Your task to perform on an android device: install app "LiveIn - Share Your Moment" Image 0: 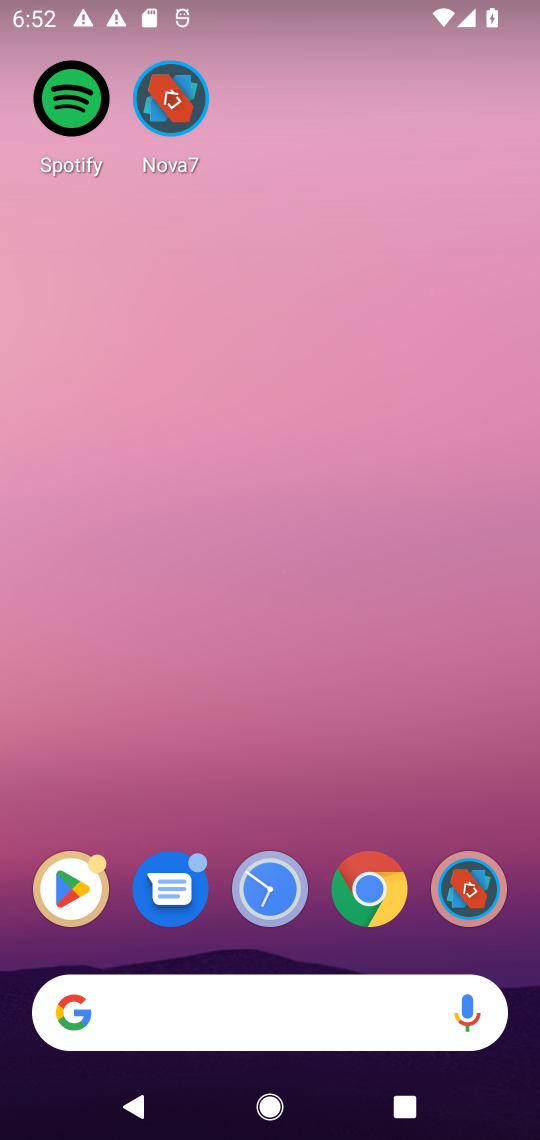
Step 0: drag from (268, 756) to (307, 50)
Your task to perform on an android device: install app "LiveIn - Share Your Moment" Image 1: 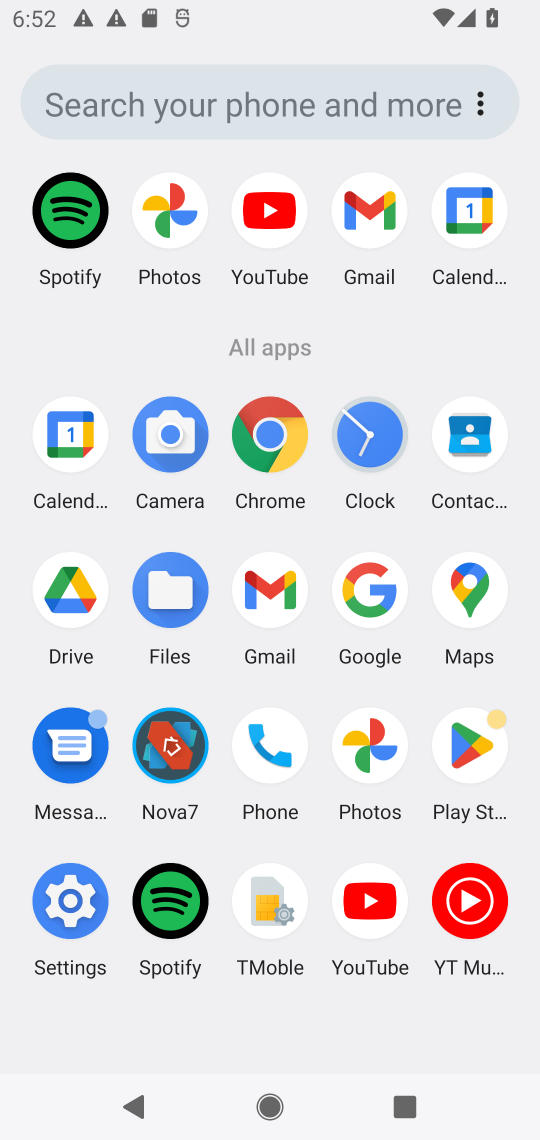
Step 1: drag from (276, 474) to (245, 148)
Your task to perform on an android device: install app "LiveIn - Share Your Moment" Image 2: 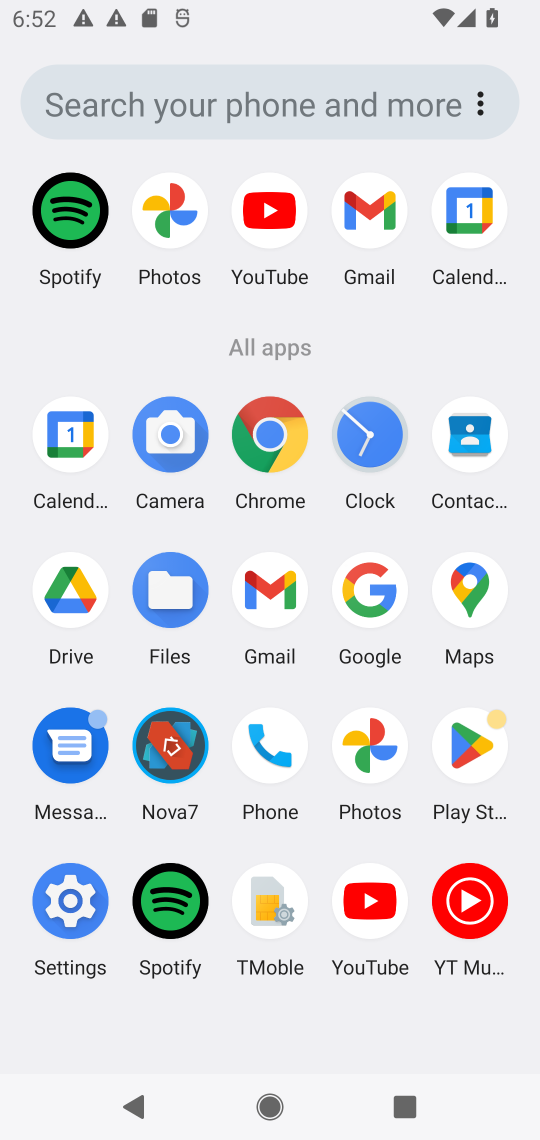
Step 2: drag from (252, 667) to (159, 88)
Your task to perform on an android device: install app "LiveIn - Share Your Moment" Image 3: 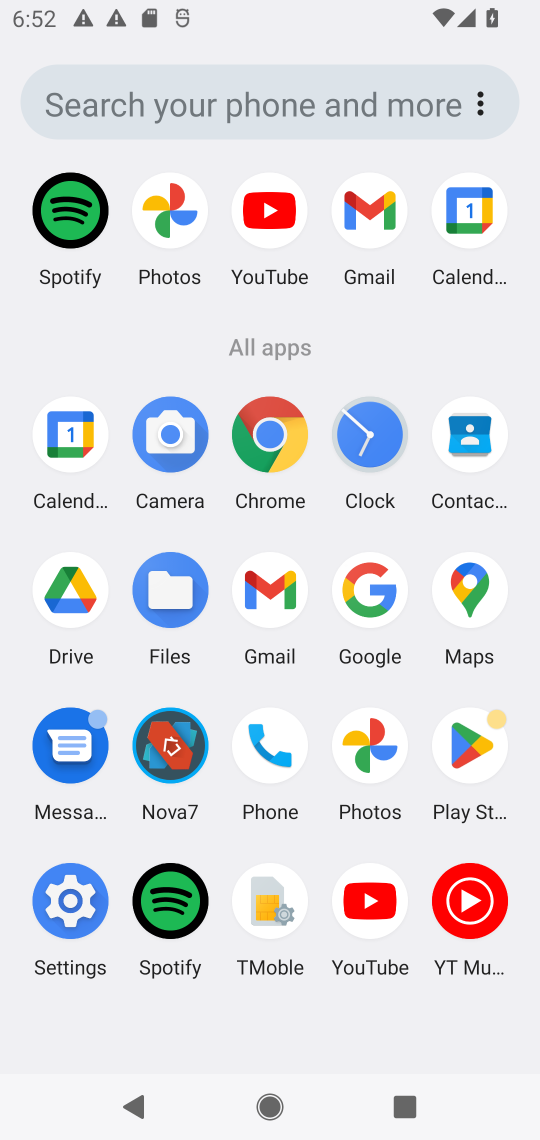
Step 3: drag from (198, 1054) to (182, 326)
Your task to perform on an android device: install app "LiveIn - Share Your Moment" Image 4: 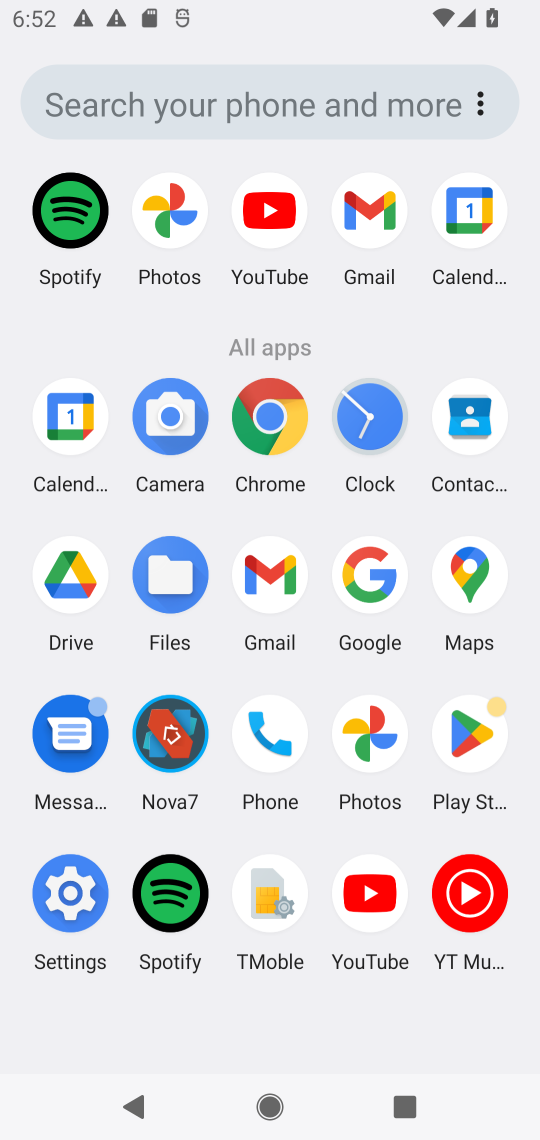
Step 4: drag from (272, 914) to (273, 436)
Your task to perform on an android device: install app "LiveIn - Share Your Moment" Image 5: 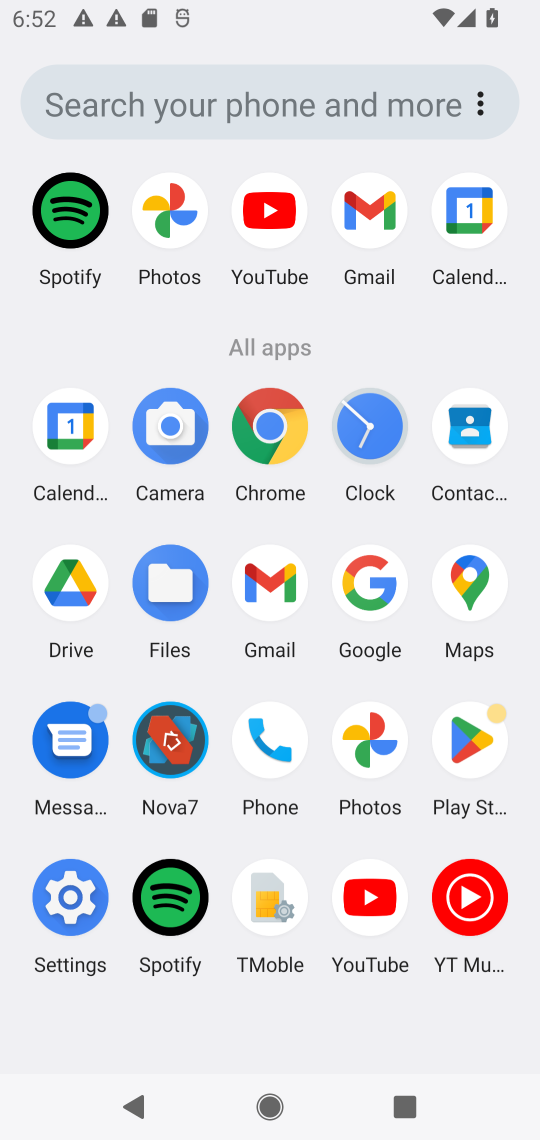
Step 5: drag from (296, 830) to (292, 379)
Your task to perform on an android device: install app "LiveIn - Share Your Moment" Image 6: 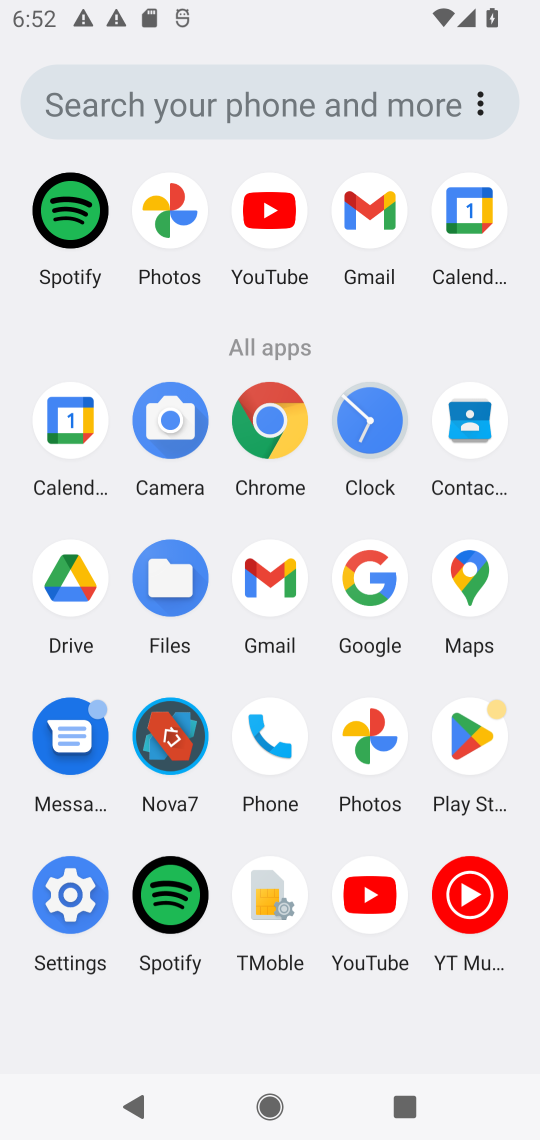
Step 6: drag from (291, 591) to (291, 418)
Your task to perform on an android device: install app "LiveIn - Share Your Moment" Image 7: 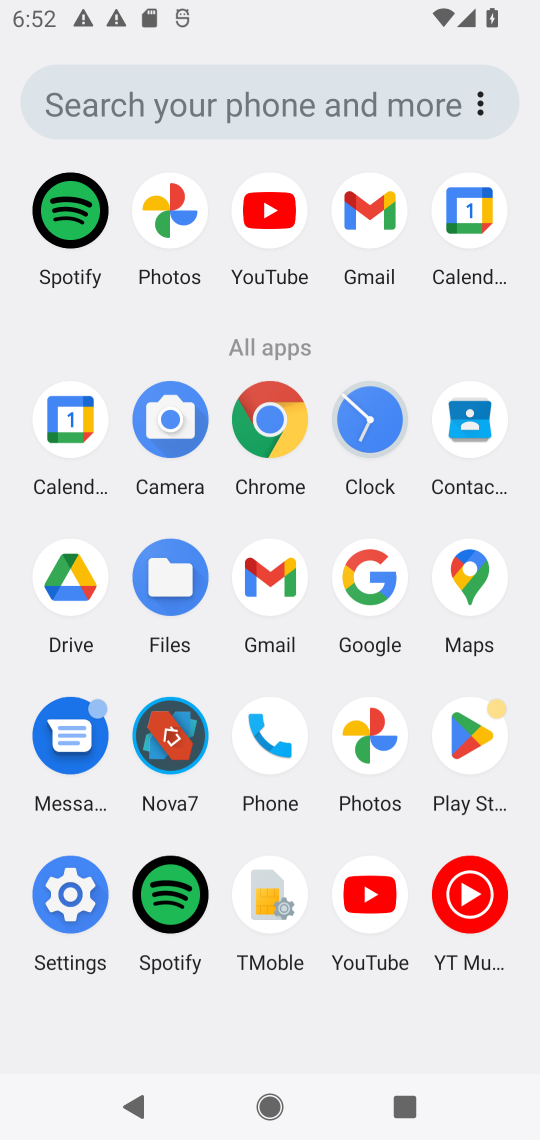
Step 7: drag from (290, 624) to (324, 536)
Your task to perform on an android device: install app "LiveIn - Share Your Moment" Image 8: 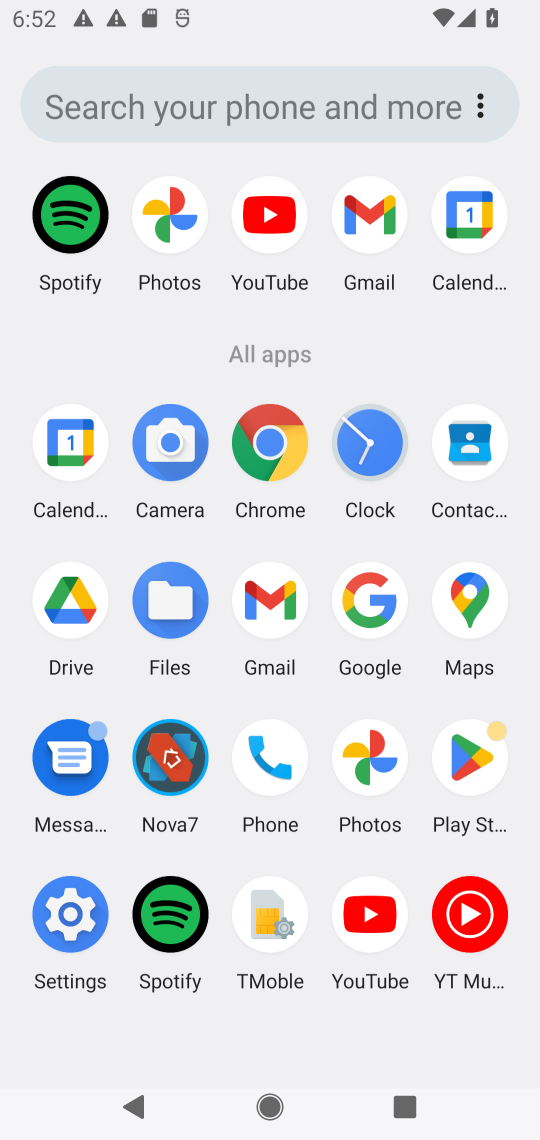
Step 8: drag from (324, 907) to (315, 509)
Your task to perform on an android device: install app "LiveIn - Share Your Moment" Image 9: 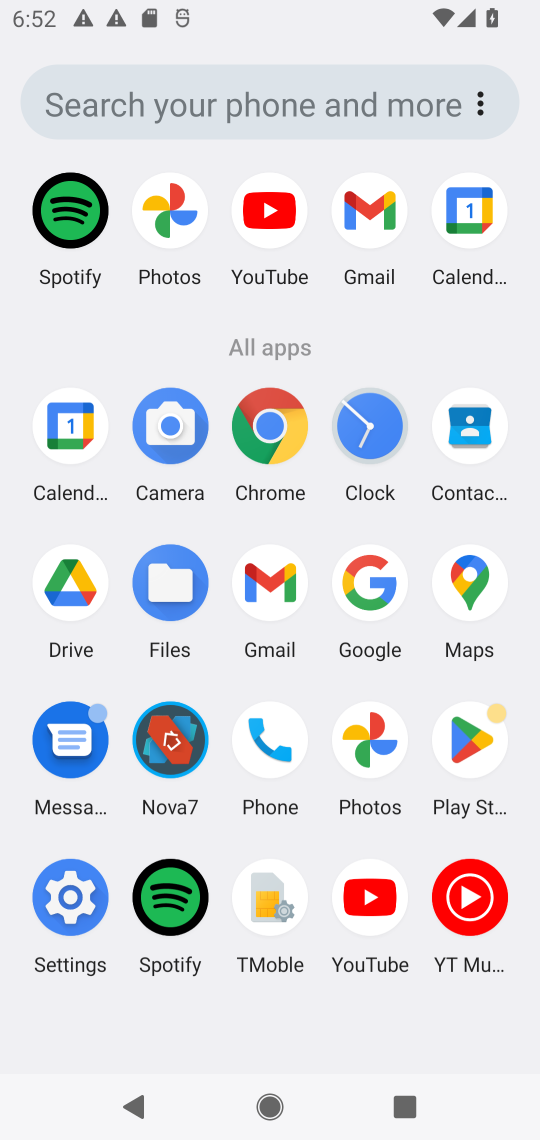
Step 9: click (250, 677)
Your task to perform on an android device: install app "LiveIn - Share Your Moment" Image 10: 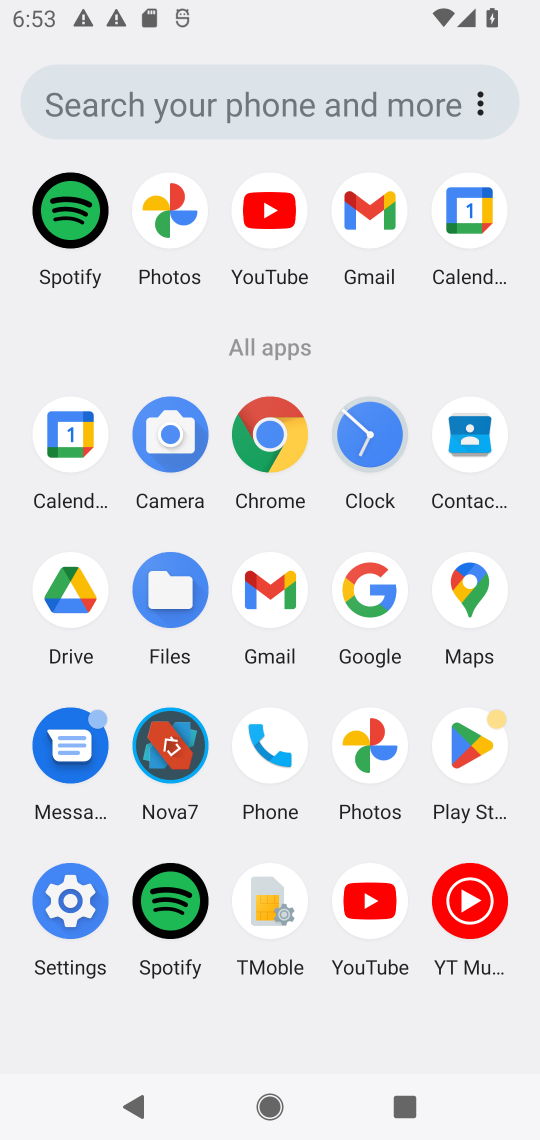
Step 10: click (473, 738)
Your task to perform on an android device: install app "LiveIn - Share Your Moment" Image 11: 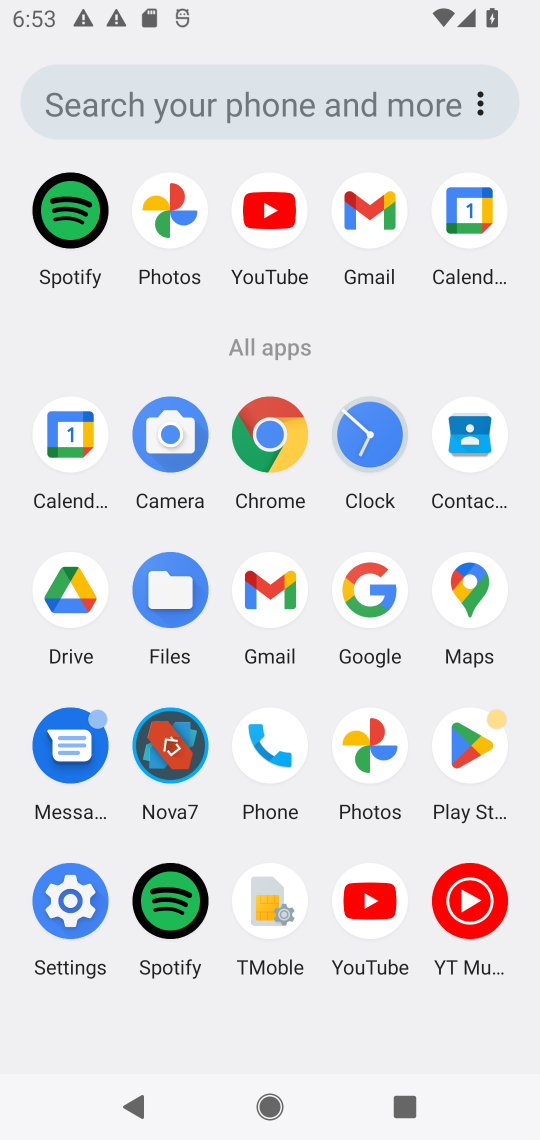
Step 11: click (472, 738)
Your task to perform on an android device: install app "LiveIn - Share Your Moment" Image 12: 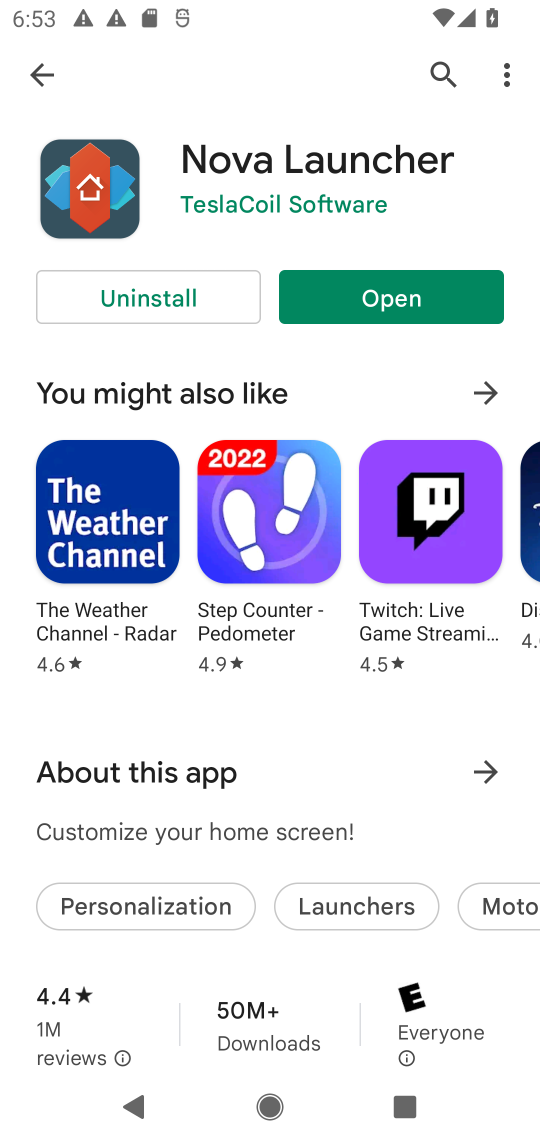
Step 12: click (472, 740)
Your task to perform on an android device: install app "LiveIn - Share Your Moment" Image 13: 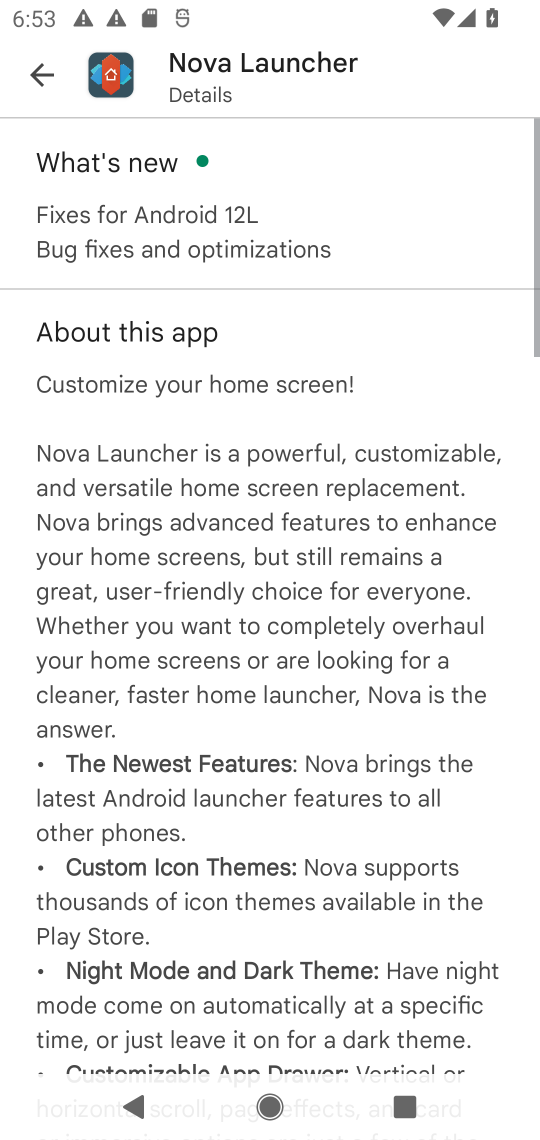
Step 13: click (44, 65)
Your task to perform on an android device: install app "LiveIn - Share Your Moment" Image 14: 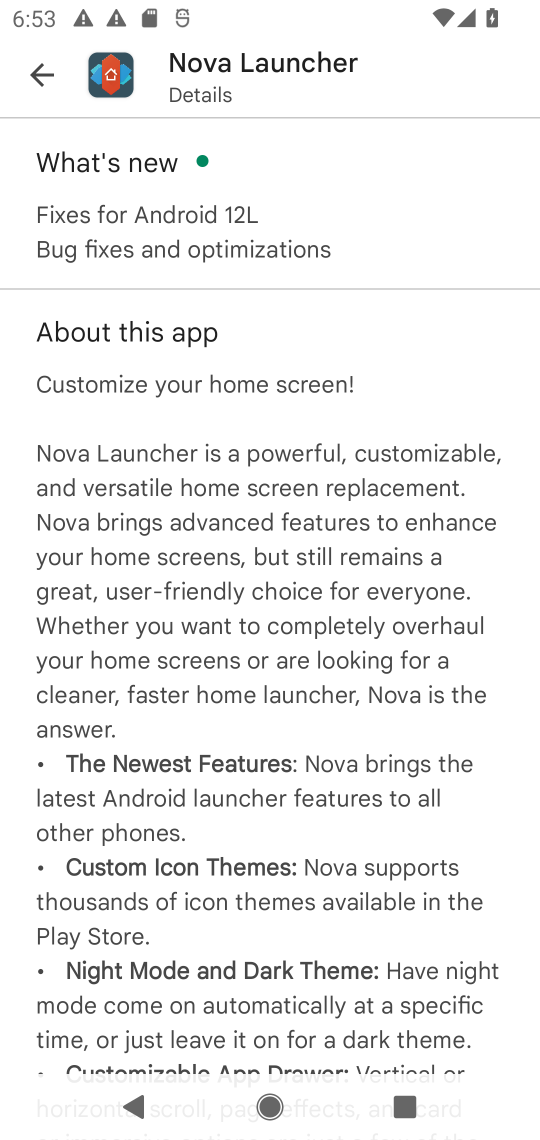
Step 14: click (32, 73)
Your task to perform on an android device: install app "LiveIn - Share Your Moment" Image 15: 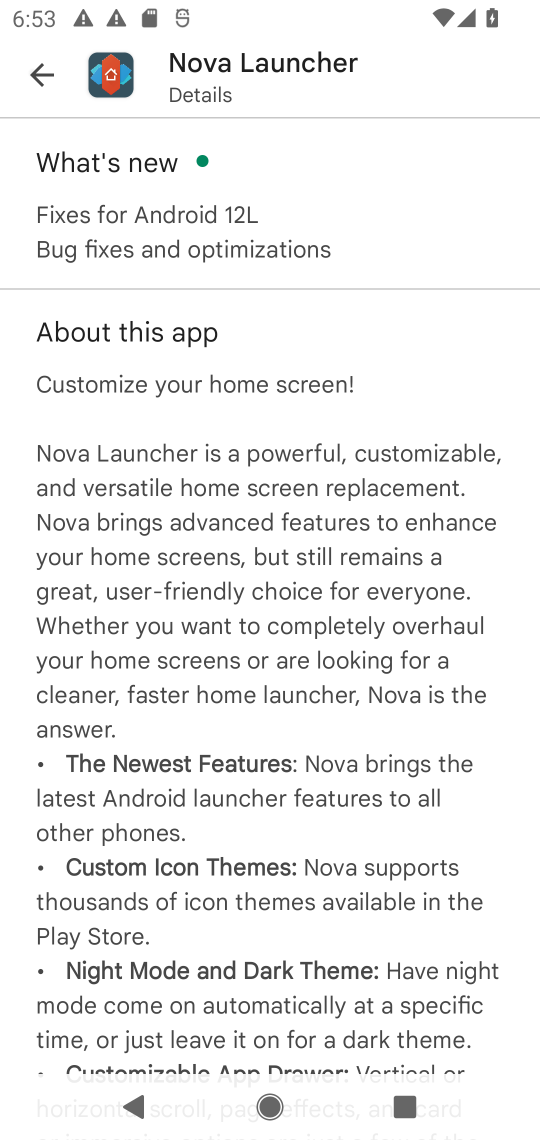
Step 15: click (33, 71)
Your task to perform on an android device: install app "LiveIn - Share Your Moment" Image 16: 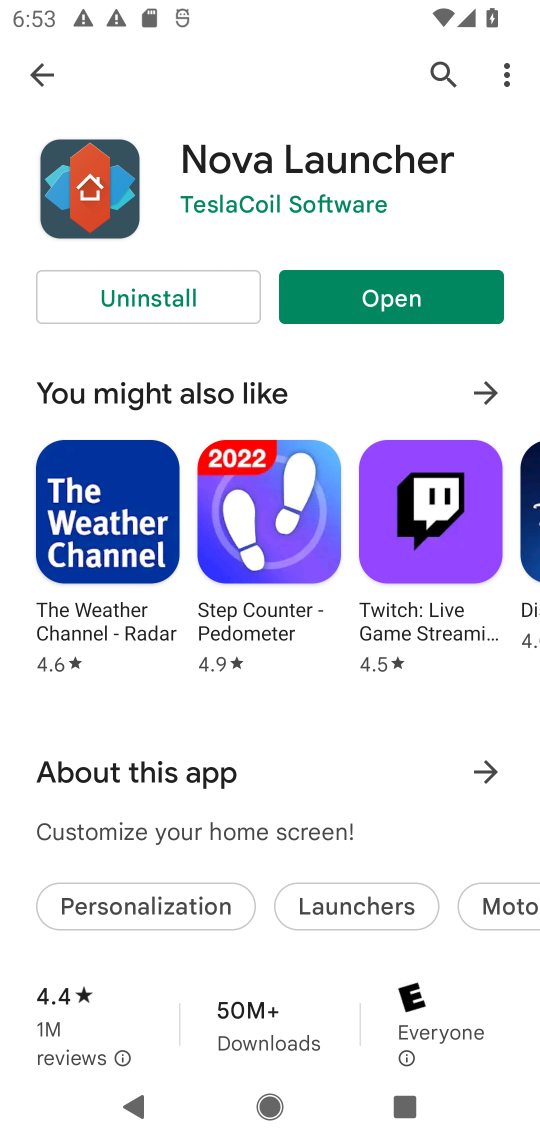
Step 16: click (38, 71)
Your task to perform on an android device: install app "LiveIn - Share Your Moment" Image 17: 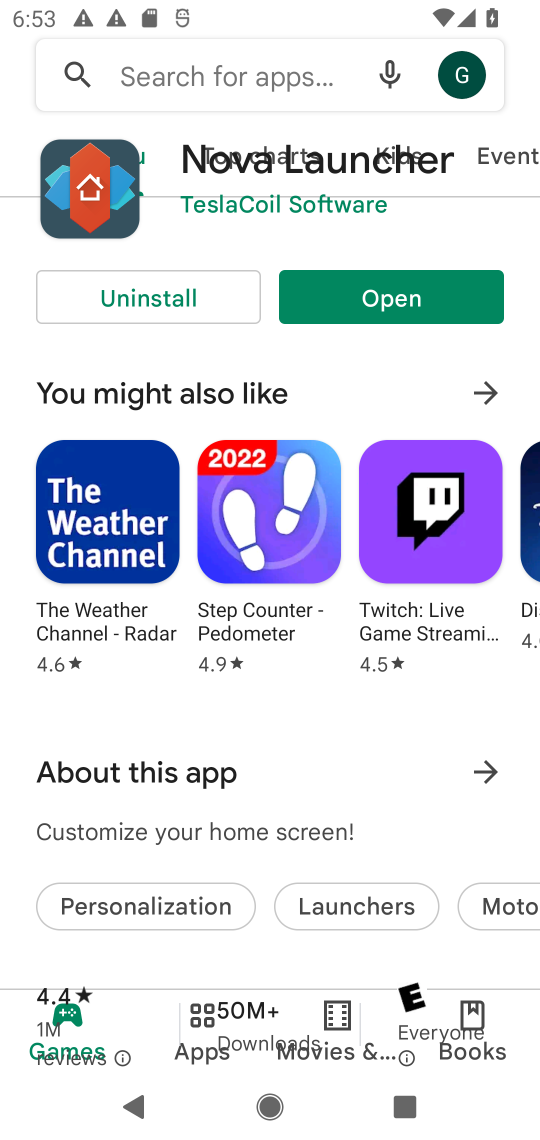
Step 17: click (34, 70)
Your task to perform on an android device: install app "LiveIn - Share Your Moment" Image 18: 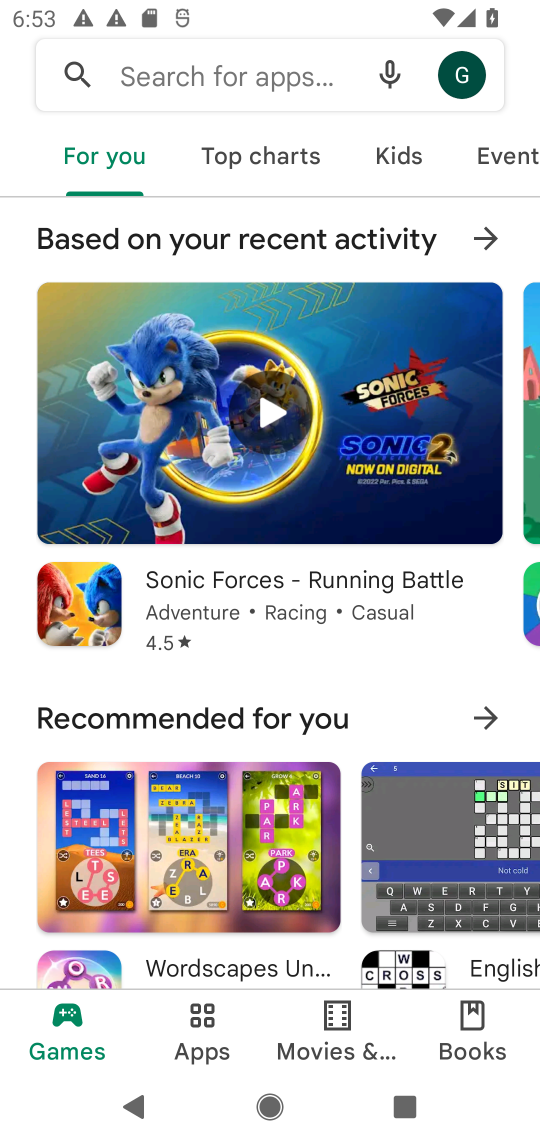
Step 18: click (169, 58)
Your task to perform on an android device: install app "LiveIn - Share Your Moment" Image 19: 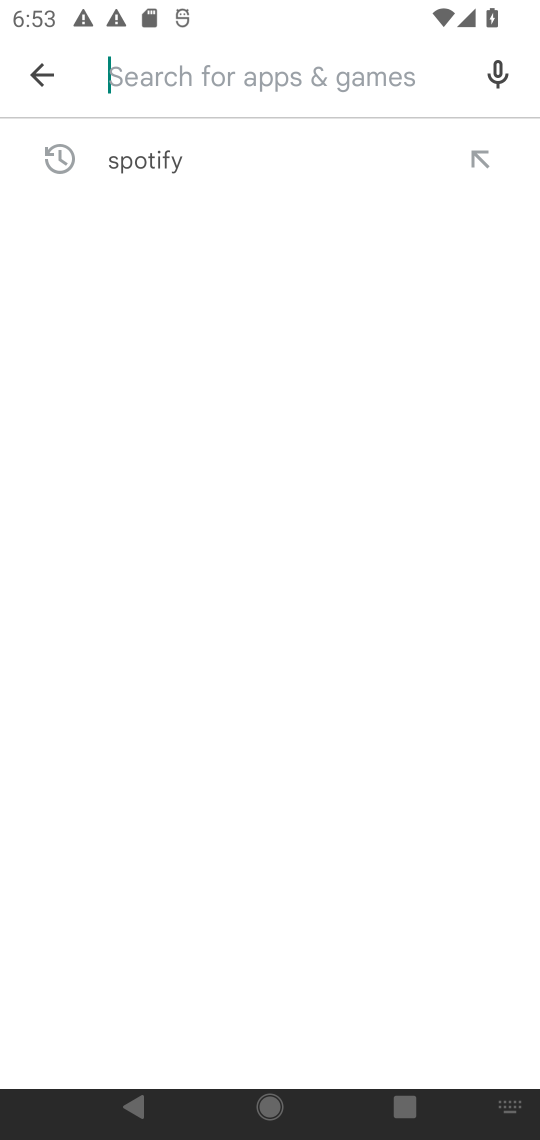
Step 19: click (203, 81)
Your task to perform on an android device: install app "LiveIn - Share Your Moment" Image 20: 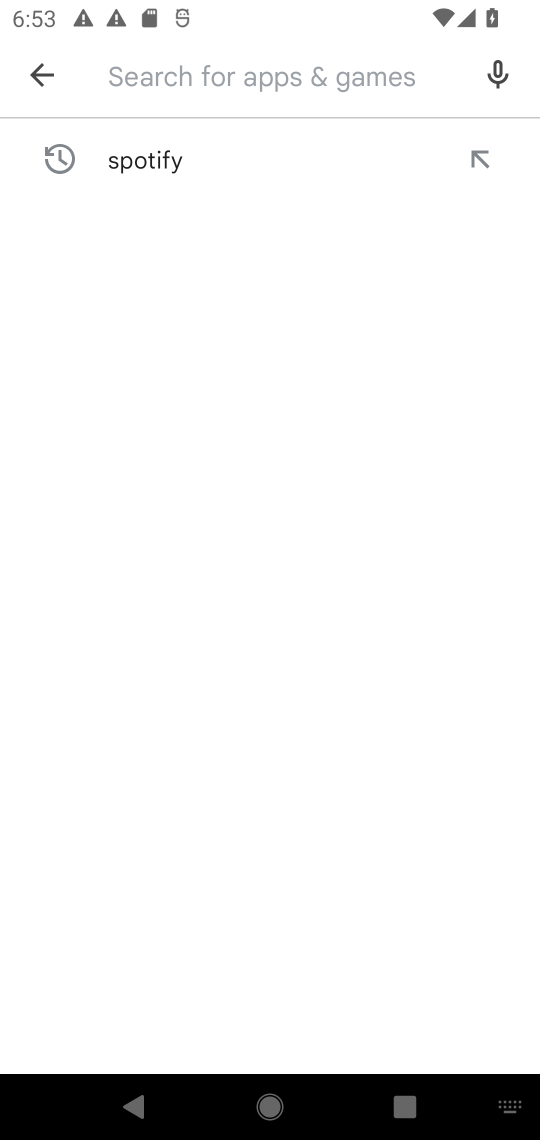
Step 20: click (203, 81)
Your task to perform on an android device: install app "LiveIn - Share Your Moment" Image 21: 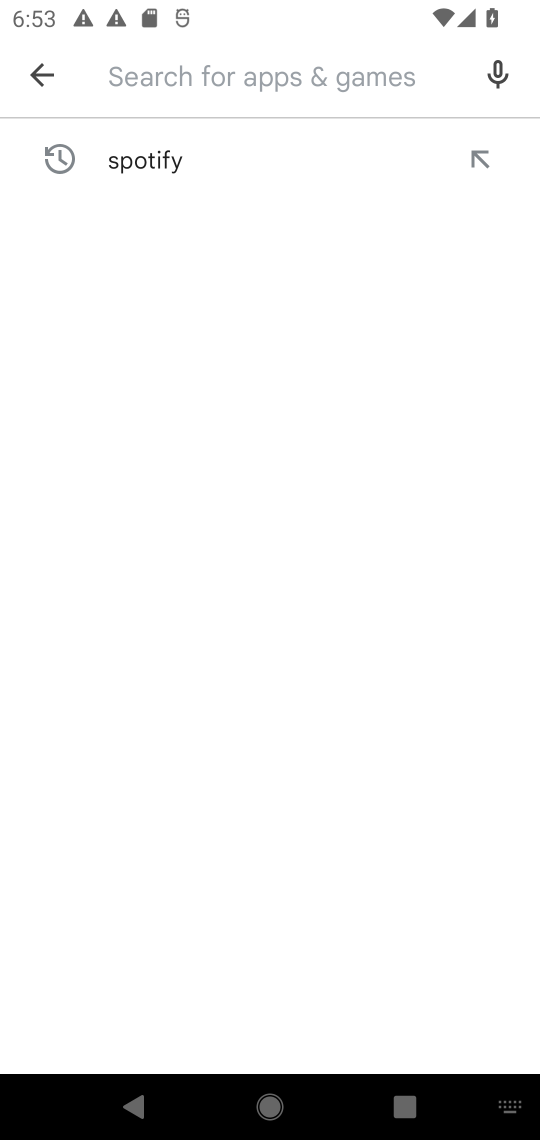
Step 21: click (204, 82)
Your task to perform on an android device: install app "LiveIn - Share Your Moment" Image 22: 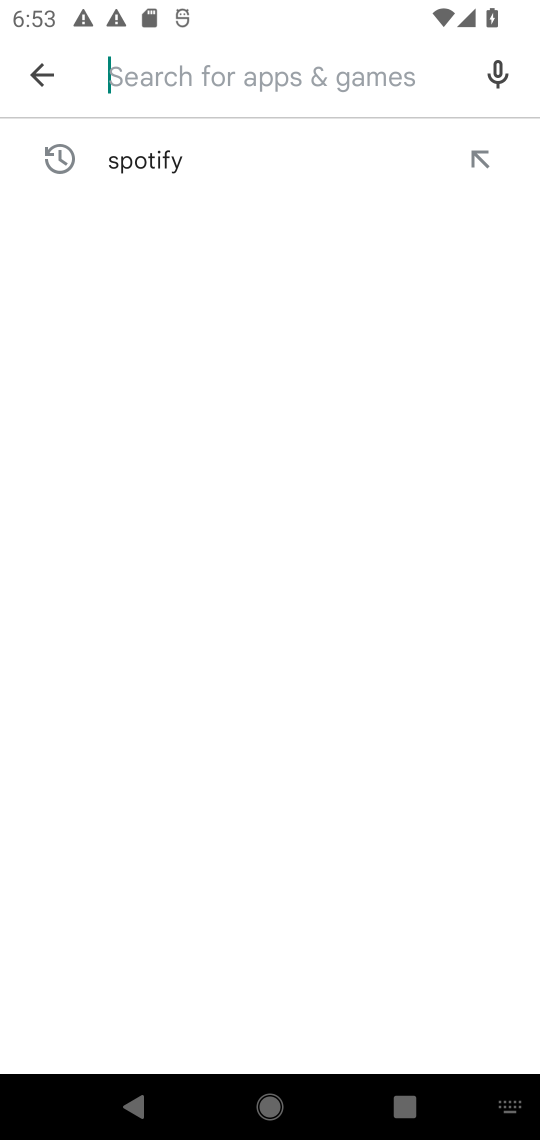
Step 22: type "Livein -Share your Moment"
Your task to perform on an android device: install app "LiveIn - Share Your Moment" Image 23: 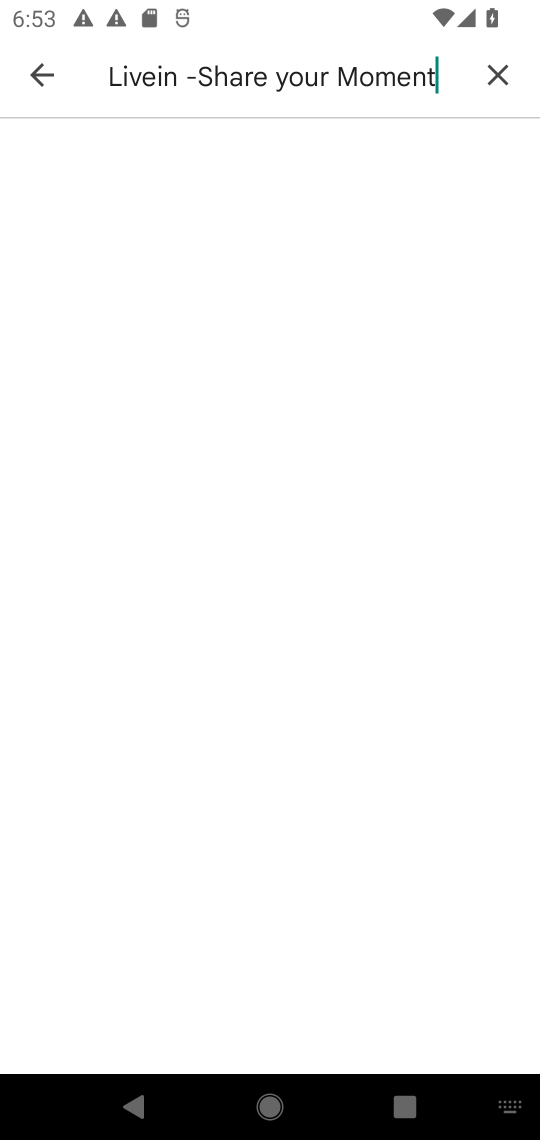
Step 23: click (442, 115)
Your task to perform on an android device: install app "LiveIn - Share Your Moment" Image 24: 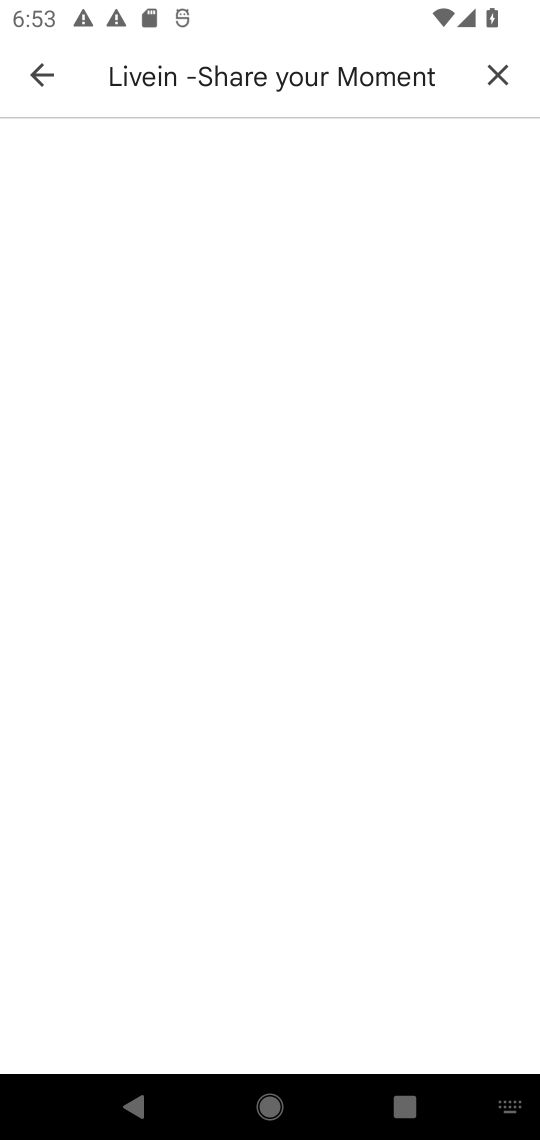
Step 24: click (442, 115)
Your task to perform on an android device: install app "LiveIn - Share Your Moment" Image 25: 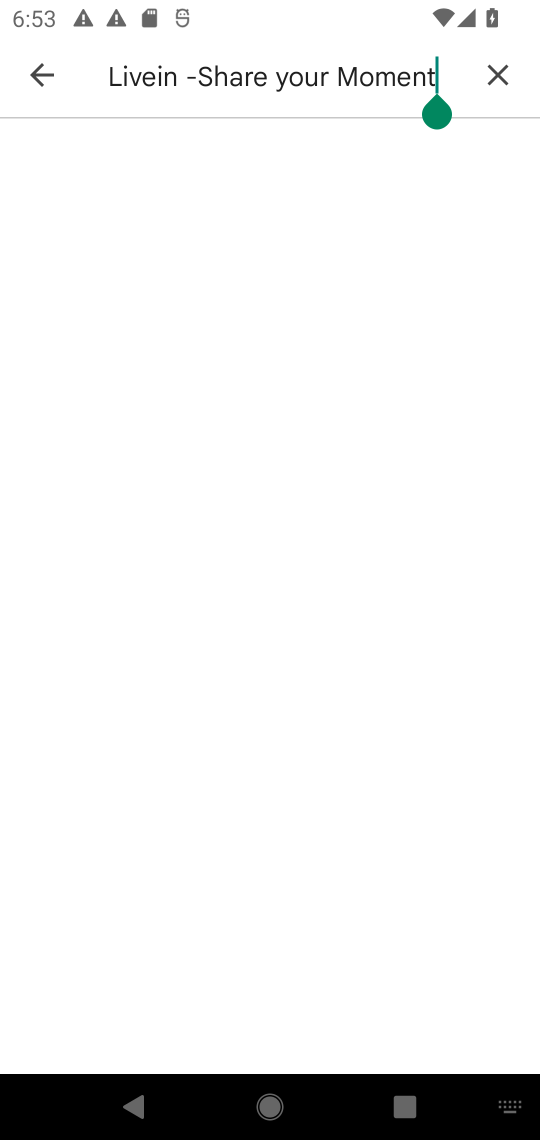
Step 25: click (498, 74)
Your task to perform on an android device: install app "LiveIn - Share Your Moment" Image 26: 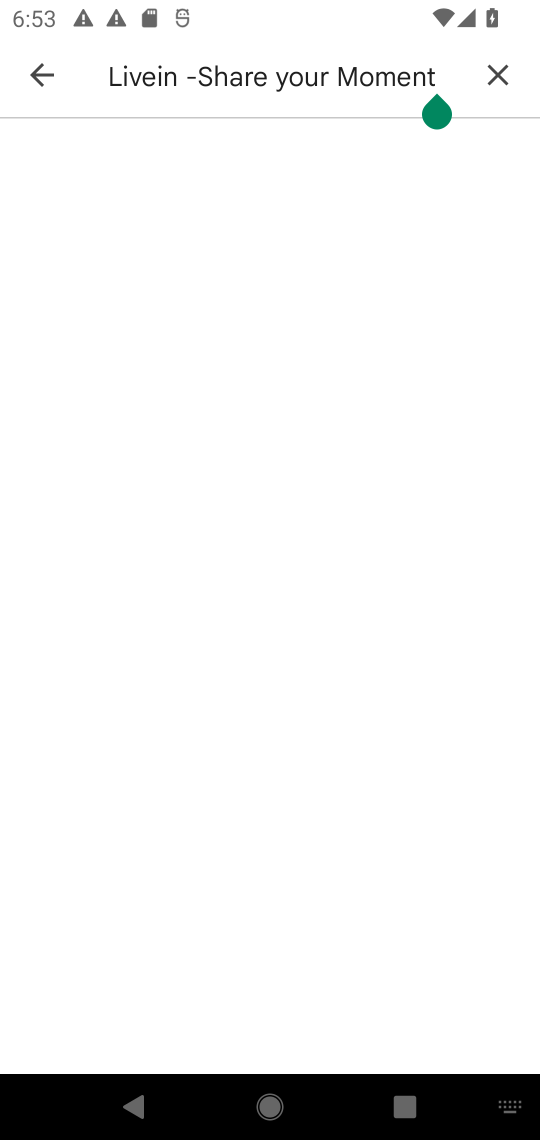
Step 26: click (498, 74)
Your task to perform on an android device: install app "LiveIn - Share Your Moment" Image 27: 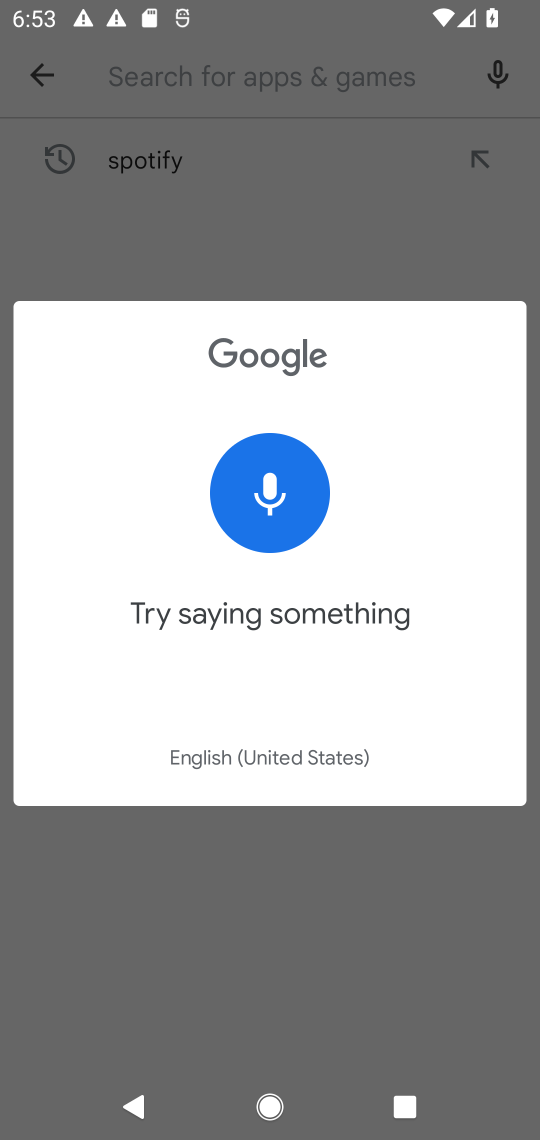
Step 27: click (303, 214)
Your task to perform on an android device: install app "LiveIn - Share Your Moment" Image 28: 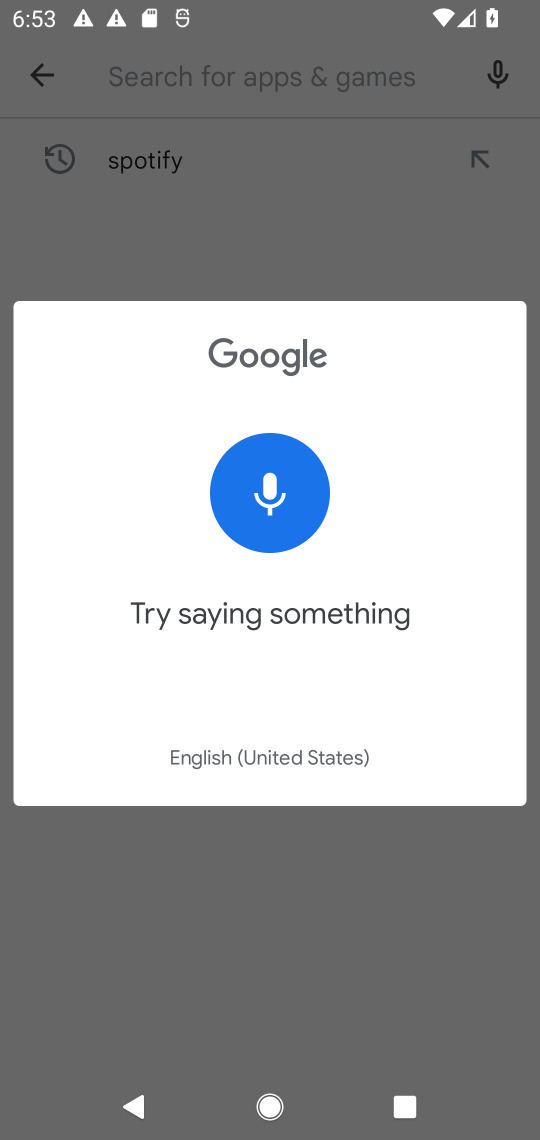
Step 28: click (303, 214)
Your task to perform on an android device: install app "LiveIn - Share Your Moment" Image 29: 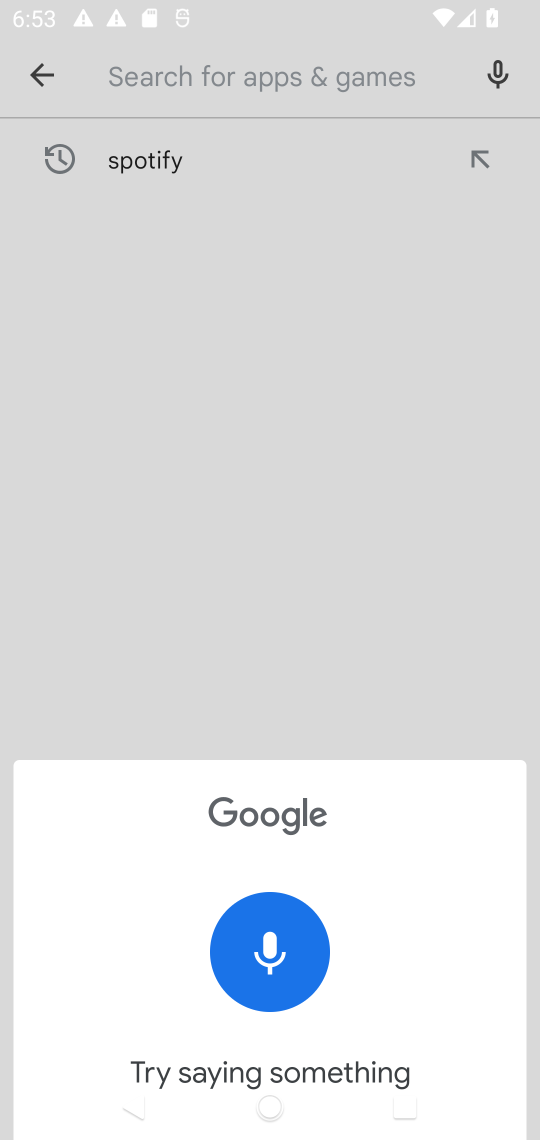
Step 29: click (303, 214)
Your task to perform on an android device: install app "LiveIn - Share Your Moment" Image 30: 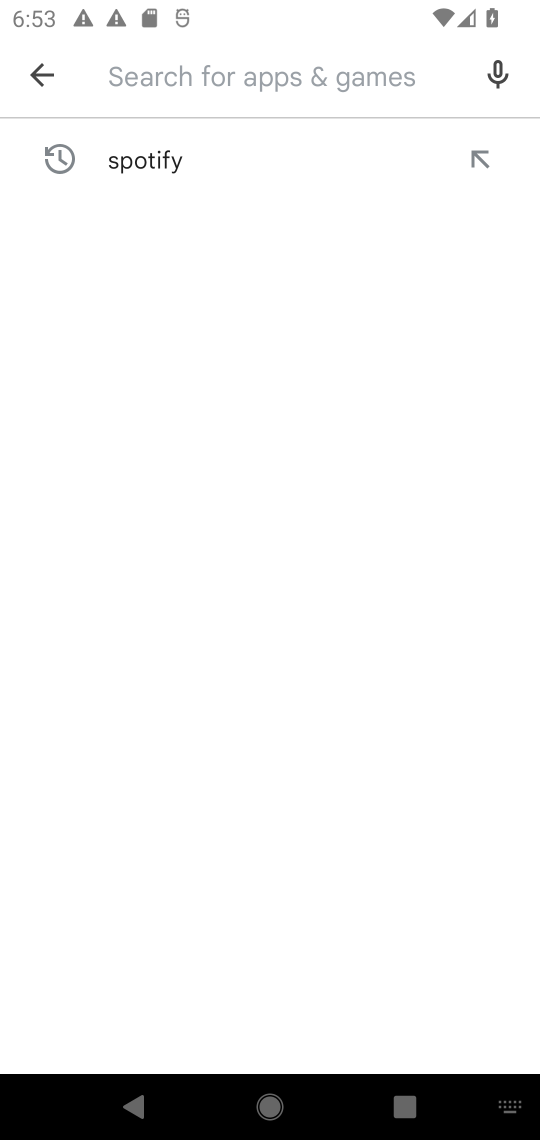
Step 30: click (303, 214)
Your task to perform on an android device: install app "LiveIn - Share Your Moment" Image 31: 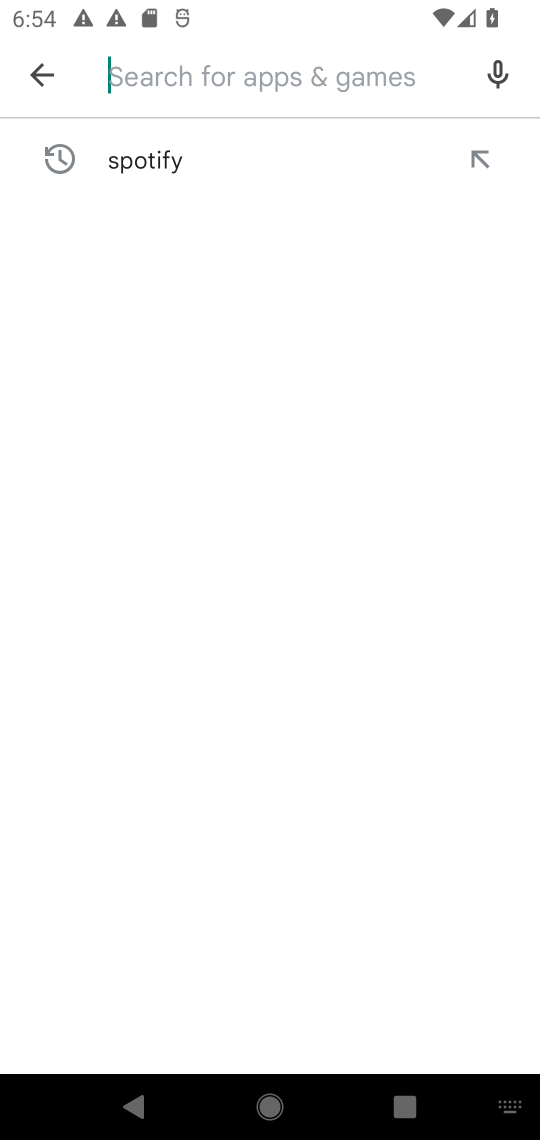
Step 31: type "LiveIn"
Your task to perform on an android device: install app "LiveIn - Share Your Moment" Image 32: 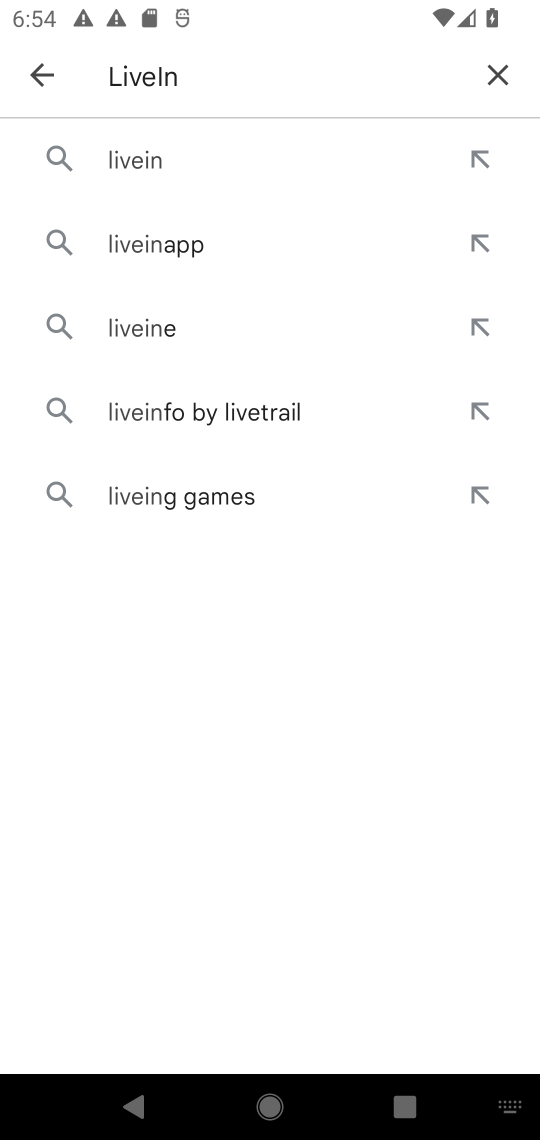
Step 32: click (118, 141)
Your task to perform on an android device: install app "LiveIn - Share Your Moment" Image 33: 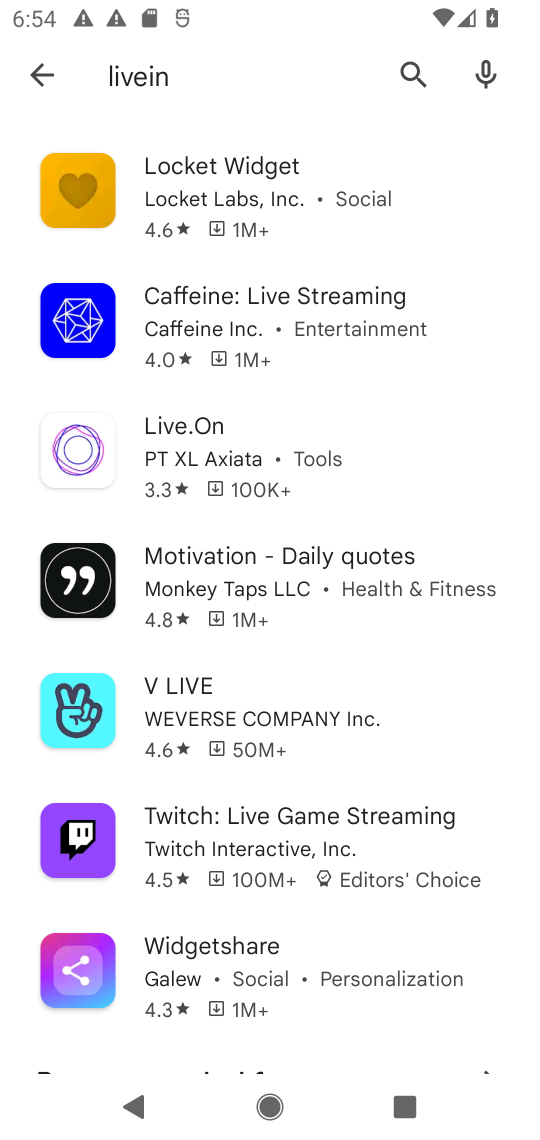
Step 33: drag from (131, 276) to (179, 385)
Your task to perform on an android device: install app "LiveIn - Share Your Moment" Image 34: 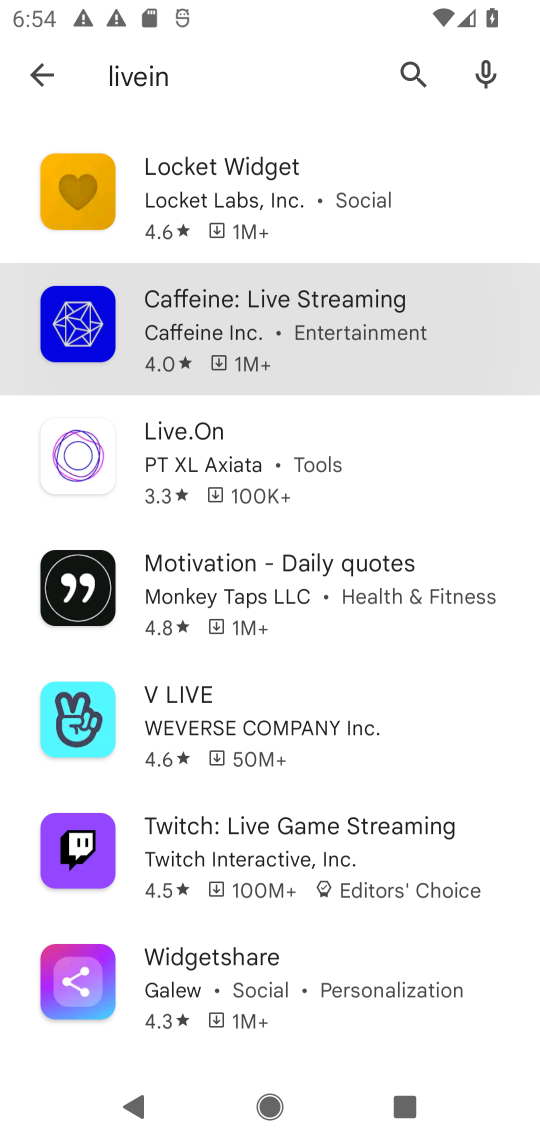
Step 34: drag from (201, 721) to (273, 208)
Your task to perform on an android device: install app "LiveIn - Share Your Moment" Image 35: 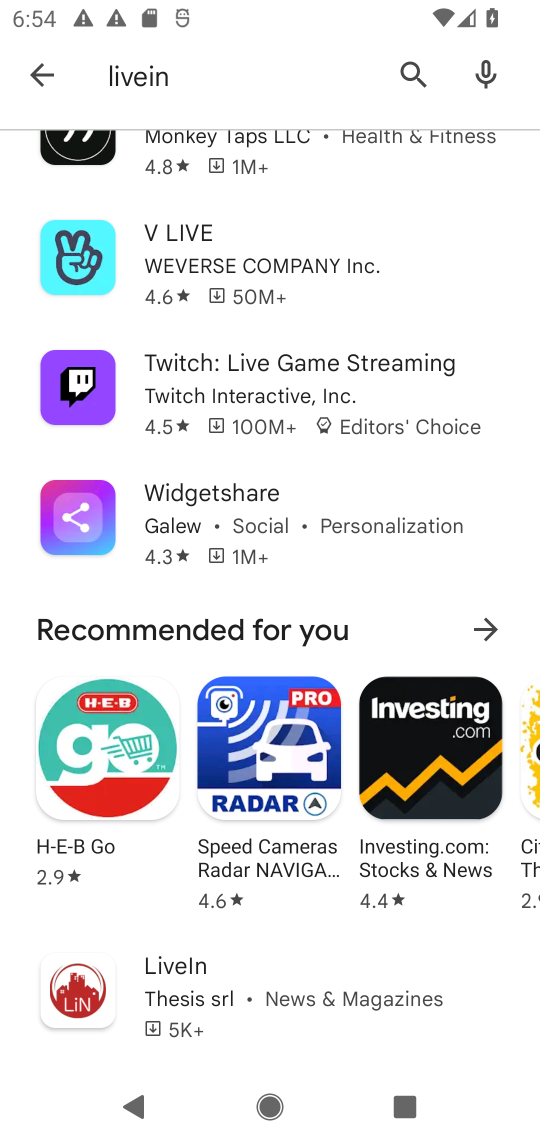
Step 35: click (276, 68)
Your task to perform on an android device: install app "LiveIn - Share Your Moment" Image 36: 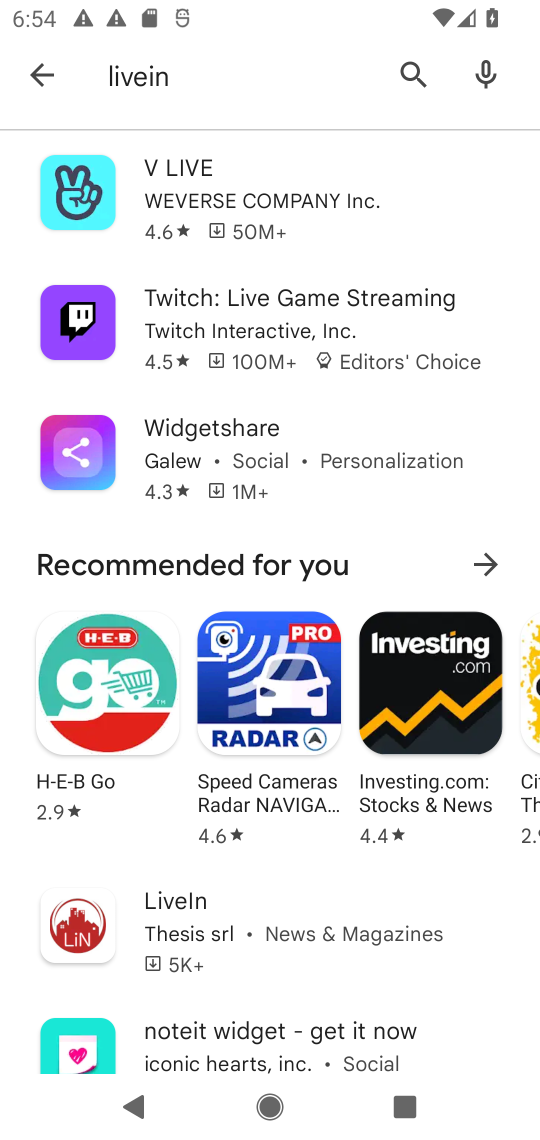
Step 36: drag from (180, 485) to (223, 1135)
Your task to perform on an android device: install app "LiveIn - Share Your Moment" Image 37: 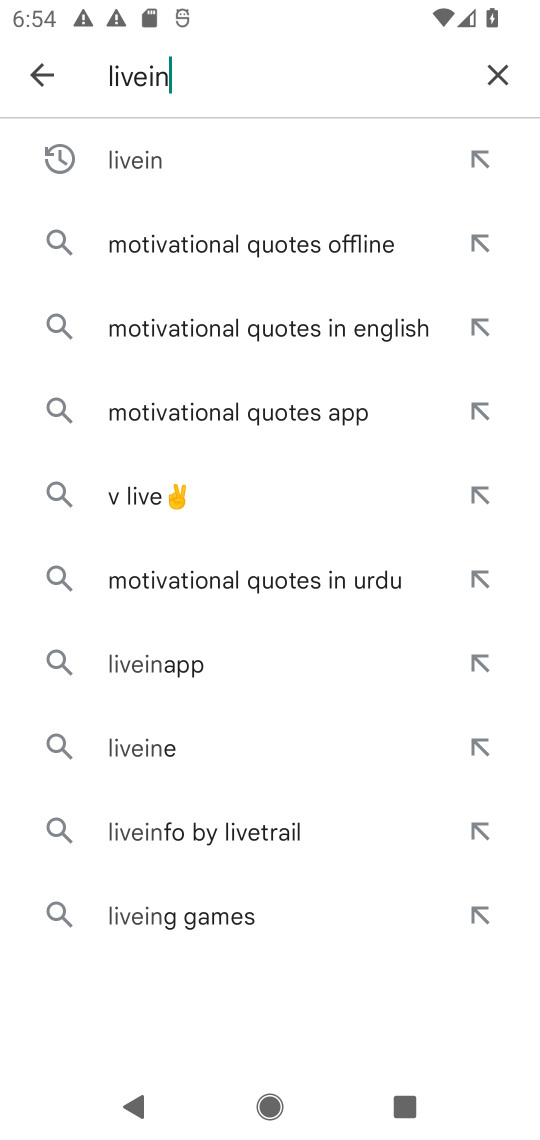
Step 37: click (132, 161)
Your task to perform on an android device: install app "LiveIn - Share Your Moment" Image 38: 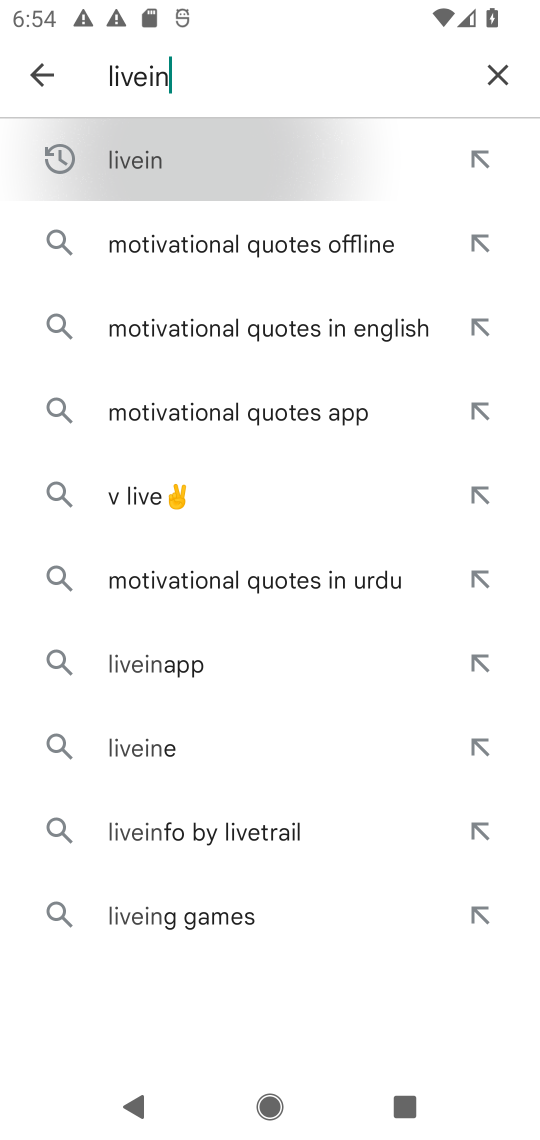
Step 38: click (134, 164)
Your task to perform on an android device: install app "LiveIn - Share Your Moment" Image 39: 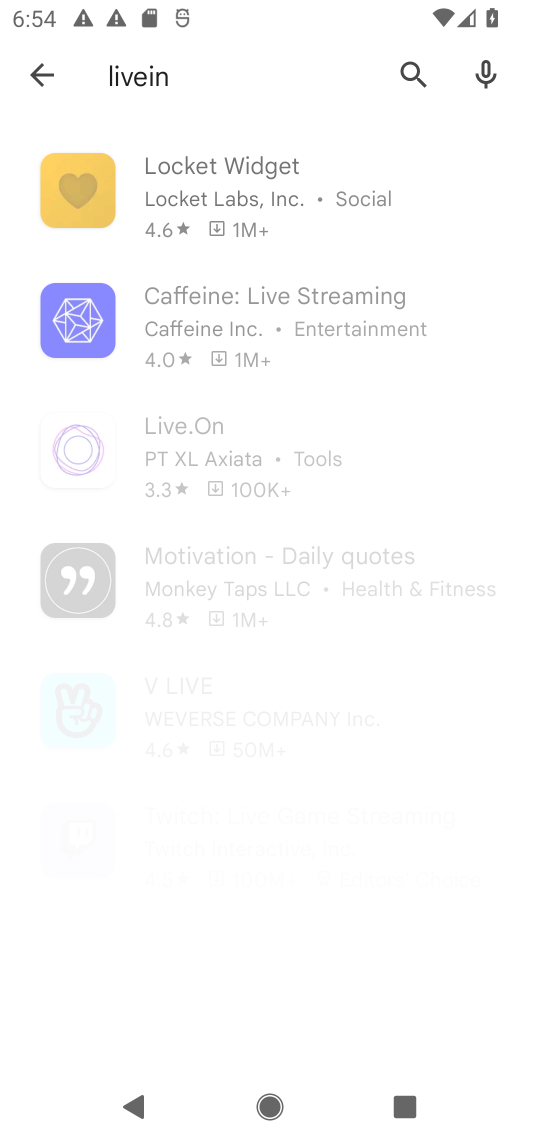
Step 39: click (136, 168)
Your task to perform on an android device: install app "LiveIn - Share Your Moment" Image 40: 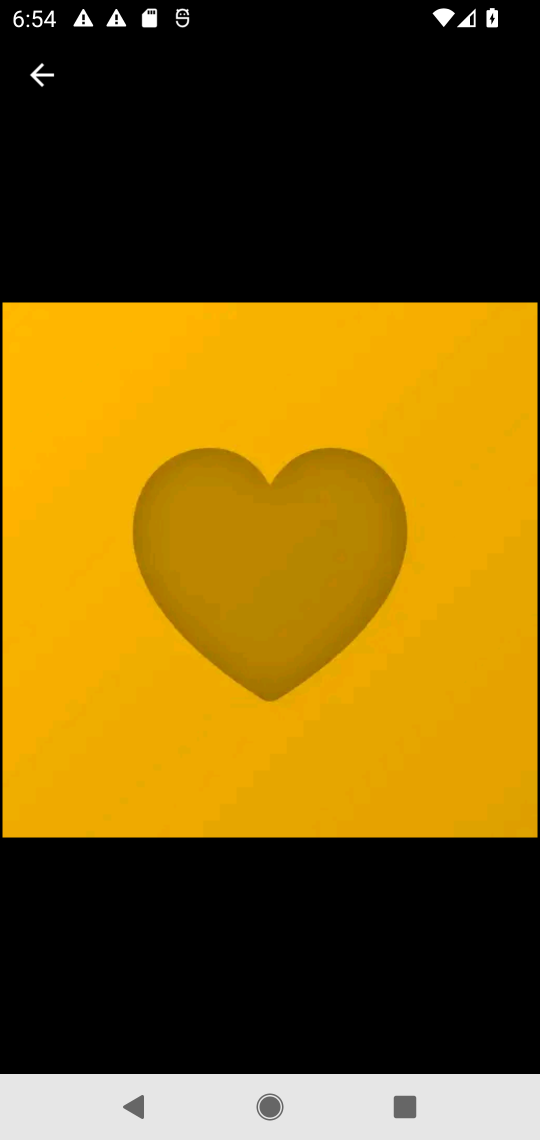
Step 40: click (38, 73)
Your task to perform on an android device: install app "LiveIn - Share Your Moment" Image 41: 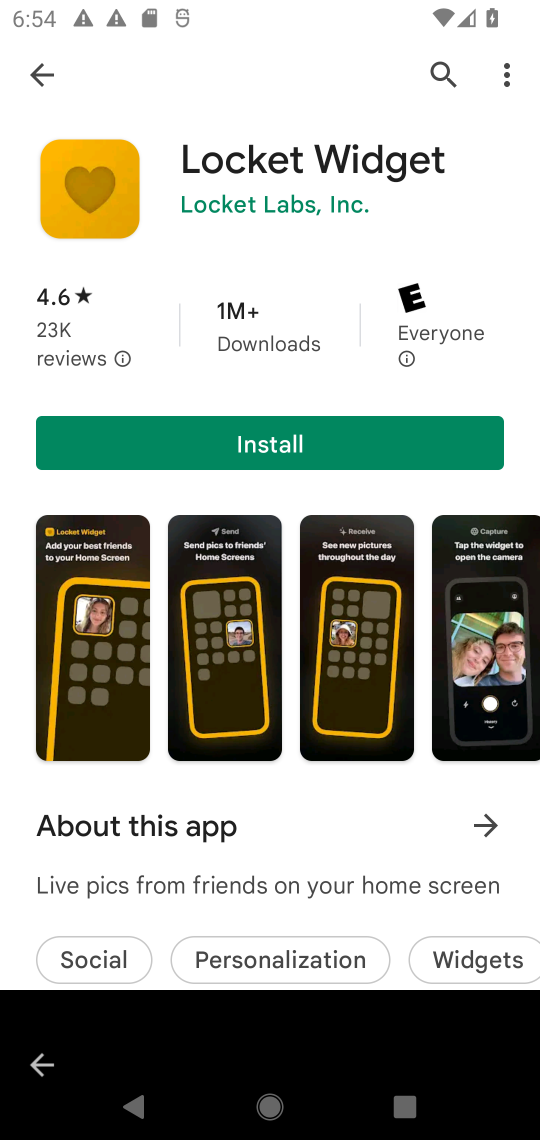
Step 41: click (38, 73)
Your task to perform on an android device: install app "LiveIn - Share Your Moment" Image 42: 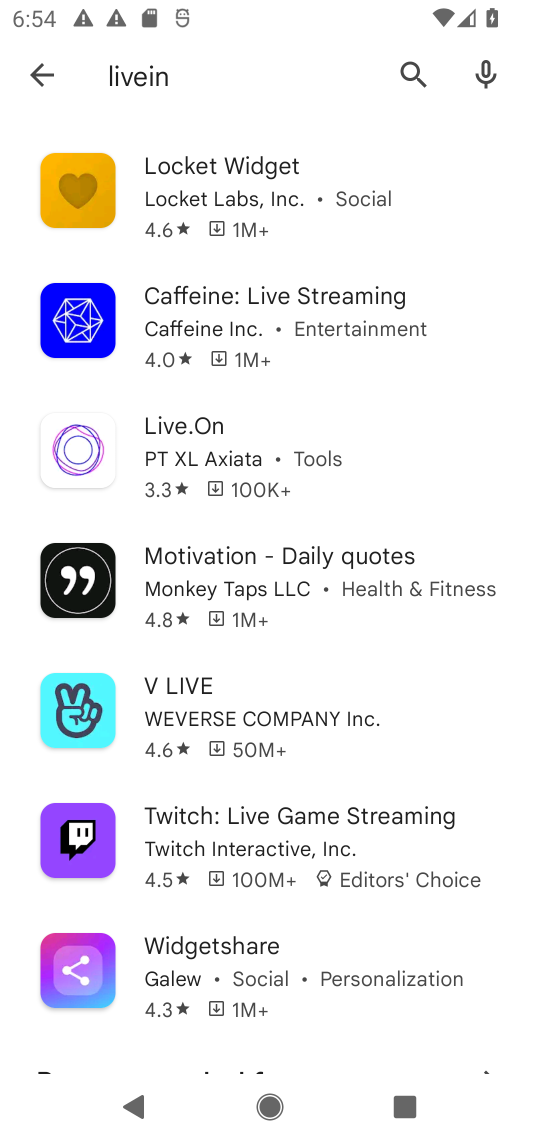
Step 42: drag from (259, 900) to (265, 234)
Your task to perform on an android device: install app "LiveIn - Share Your Moment" Image 43: 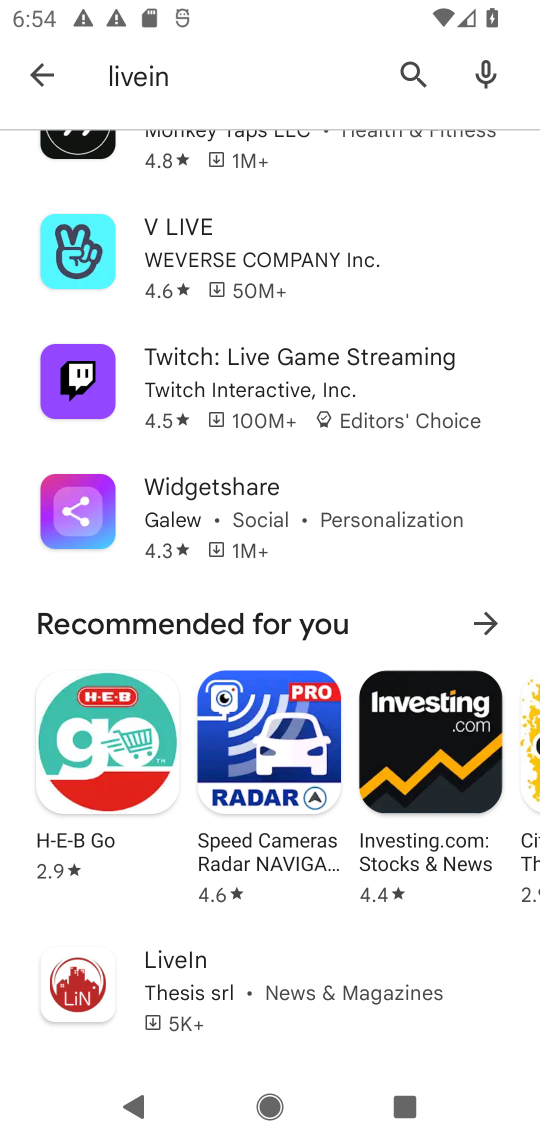
Step 43: drag from (226, 335) to (200, 874)
Your task to perform on an android device: install app "LiveIn - Share Your Moment" Image 44: 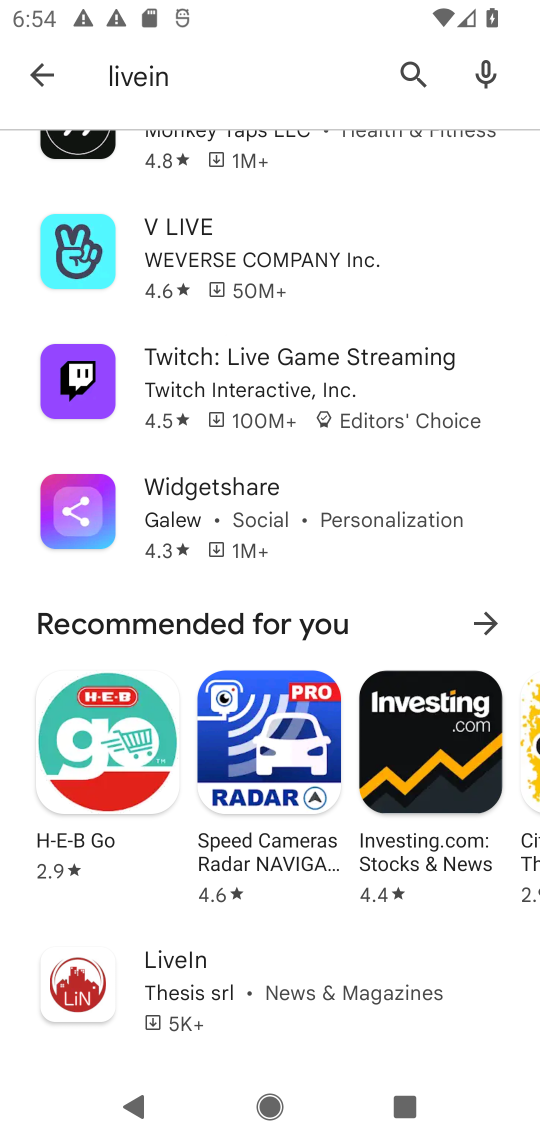
Step 44: drag from (191, 408) to (229, 1006)
Your task to perform on an android device: install app "LiveIn - Share Your Moment" Image 45: 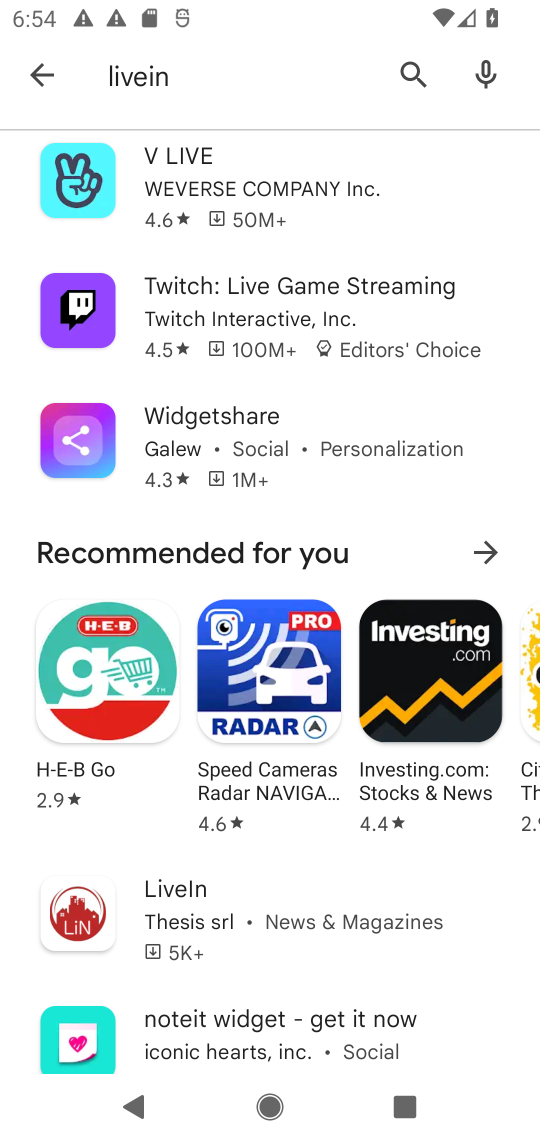
Step 45: drag from (220, 681) to (210, 1040)
Your task to perform on an android device: install app "LiveIn - Share Your Moment" Image 46: 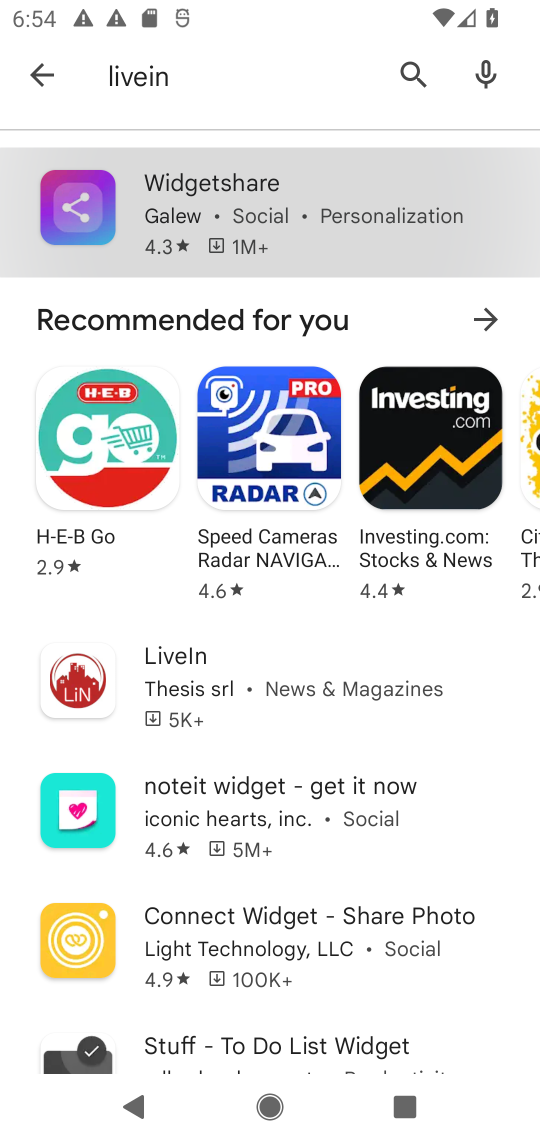
Step 46: click (207, 990)
Your task to perform on an android device: install app "LiveIn - Share Your Moment" Image 47: 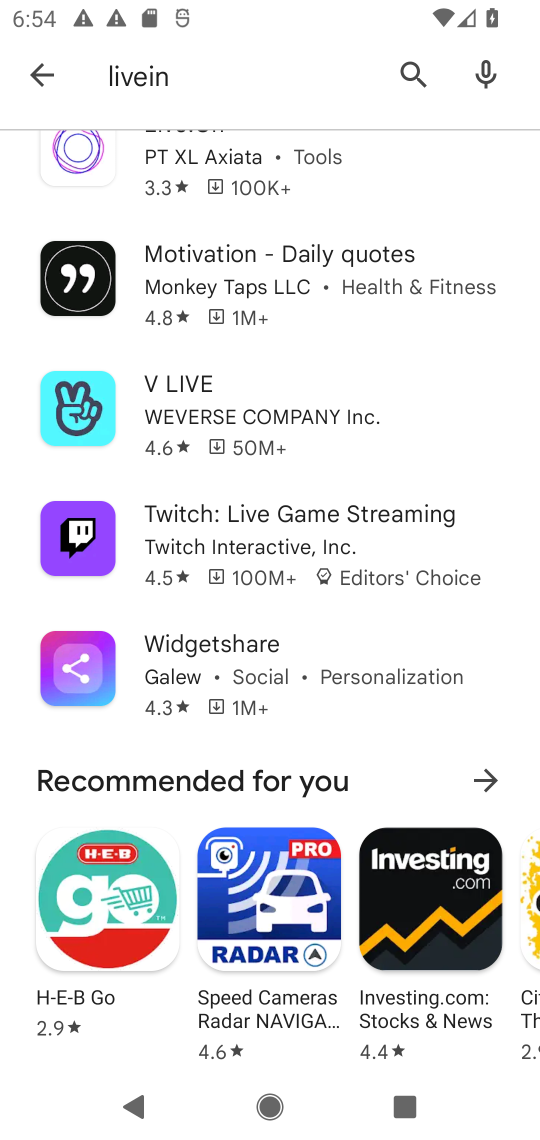
Step 47: task complete